Your task to perform on an android device: check out phone information Image 0: 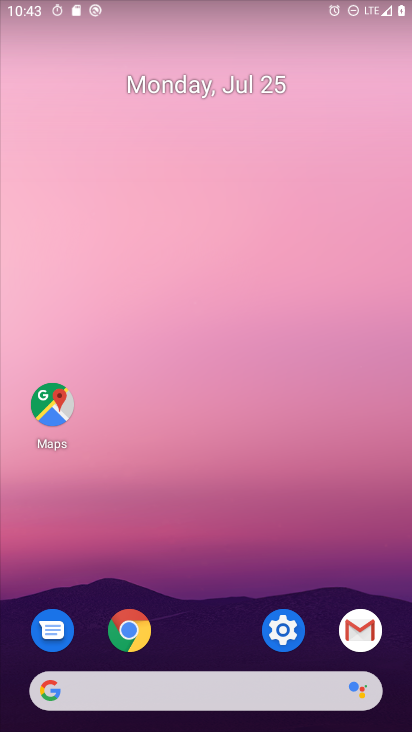
Step 0: click (262, 638)
Your task to perform on an android device: check out phone information Image 1: 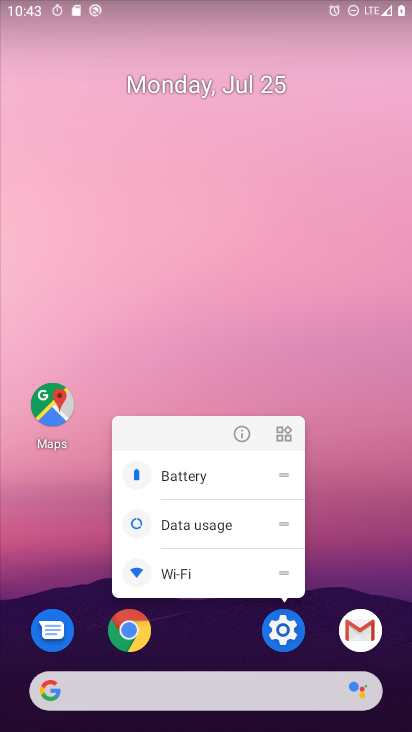
Step 1: click (274, 633)
Your task to perform on an android device: check out phone information Image 2: 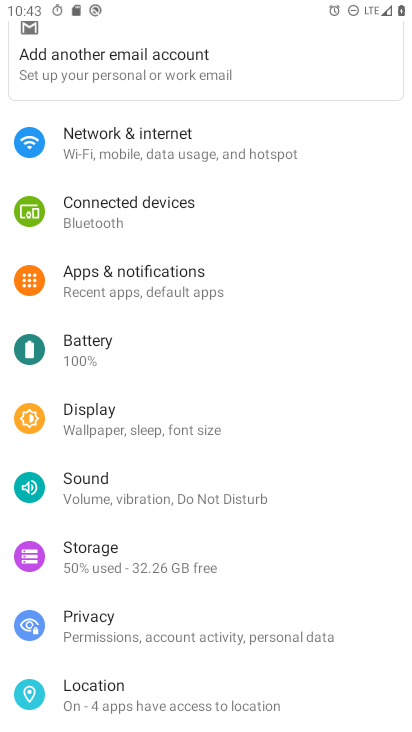
Step 2: drag from (120, 174) to (115, 252)
Your task to perform on an android device: check out phone information Image 3: 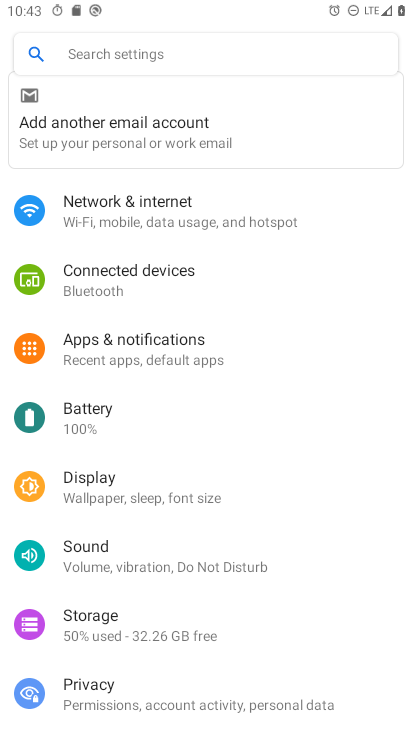
Step 3: click (95, 70)
Your task to perform on an android device: check out phone information Image 4: 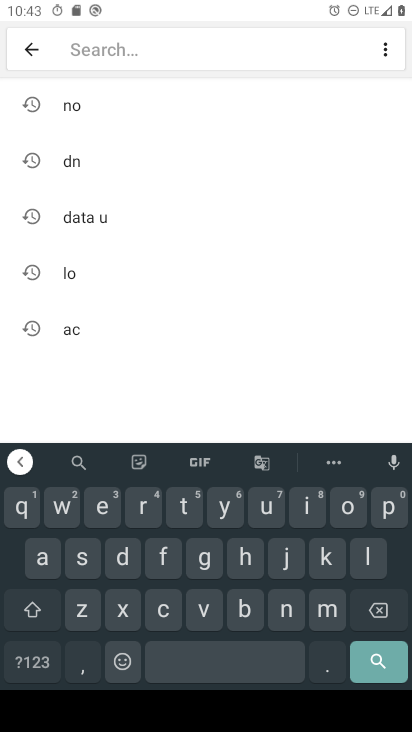
Step 4: click (41, 549)
Your task to perform on an android device: check out phone information Image 5: 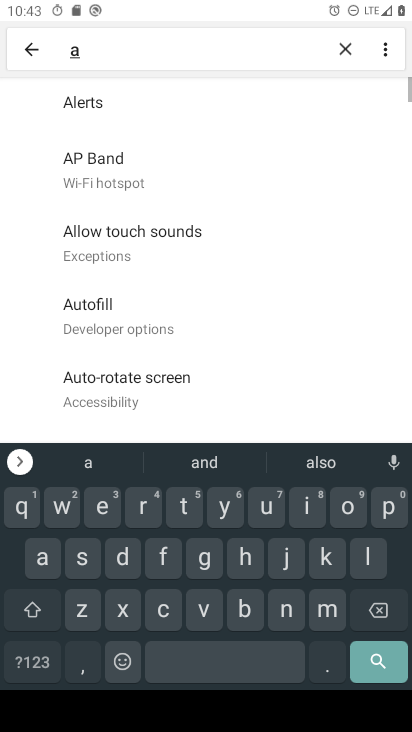
Step 5: click (237, 614)
Your task to perform on an android device: check out phone information Image 6: 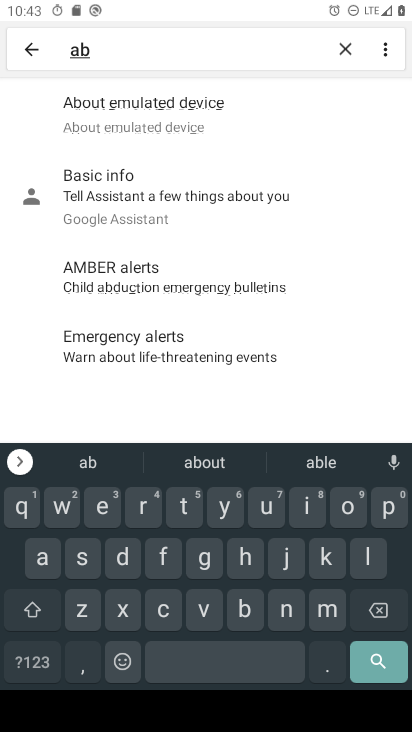
Step 6: click (109, 117)
Your task to perform on an android device: check out phone information Image 7: 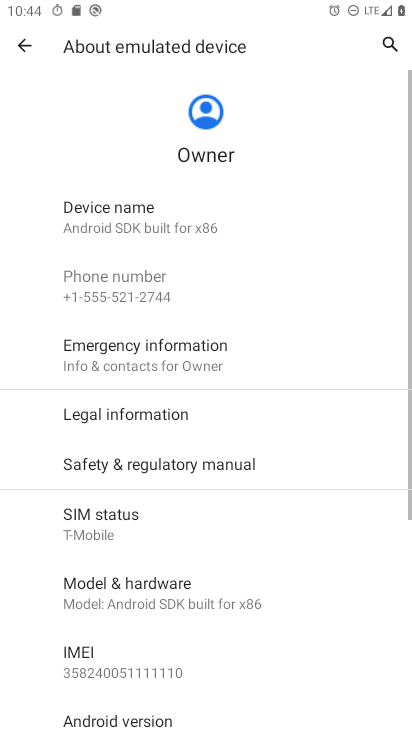
Step 7: task complete